Your task to perform on an android device: Search for seafood restaurants on Google Maps Image 0: 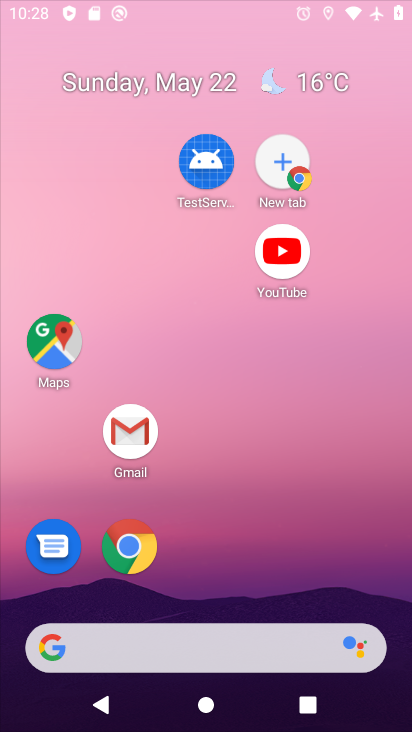
Step 0: drag from (224, 0) to (214, 121)
Your task to perform on an android device: Search for seafood restaurants on Google Maps Image 1: 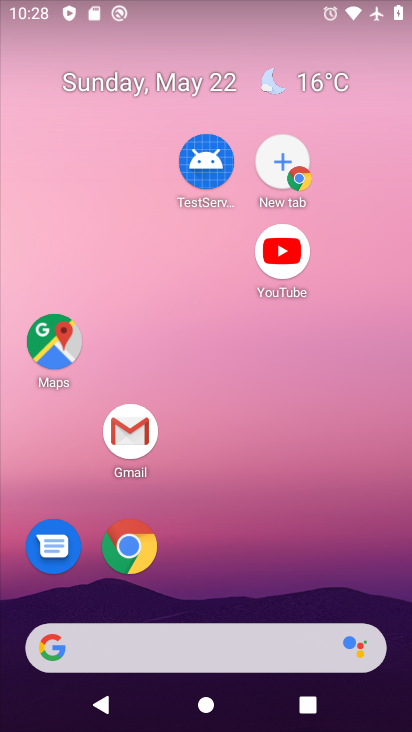
Step 1: drag from (286, 666) to (170, 85)
Your task to perform on an android device: Search for seafood restaurants on Google Maps Image 2: 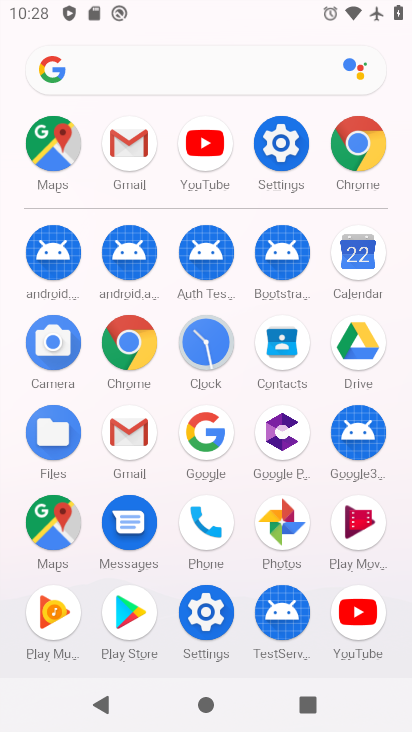
Step 2: click (45, 535)
Your task to perform on an android device: Search for seafood restaurants on Google Maps Image 3: 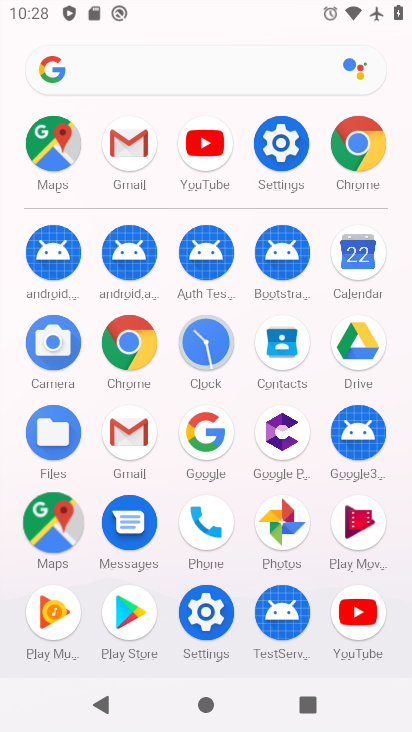
Step 3: click (51, 543)
Your task to perform on an android device: Search for seafood restaurants on Google Maps Image 4: 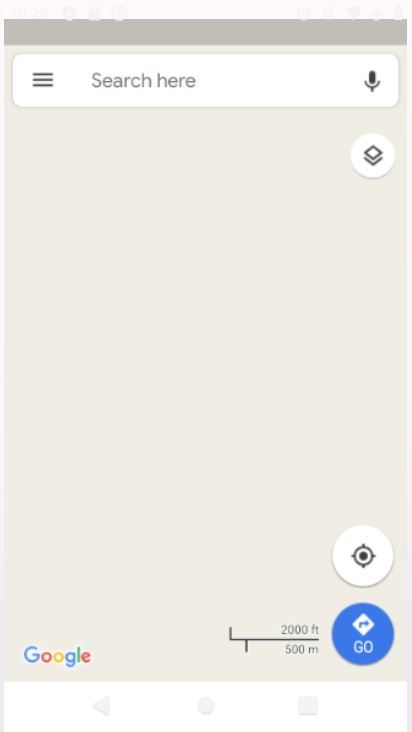
Step 4: click (60, 541)
Your task to perform on an android device: Search for seafood restaurants on Google Maps Image 5: 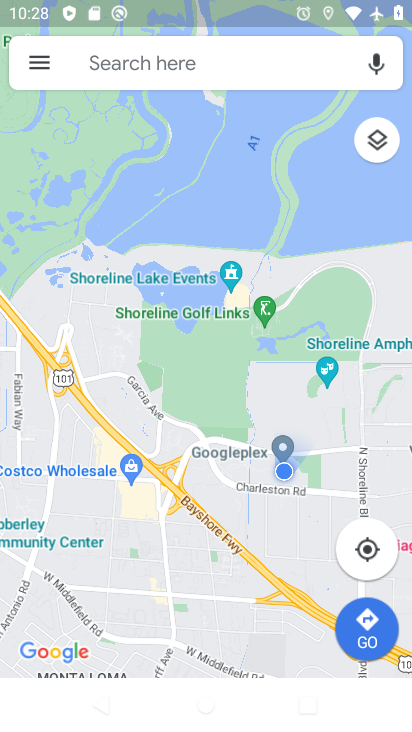
Step 5: click (94, 64)
Your task to perform on an android device: Search for seafood restaurants on Google Maps Image 6: 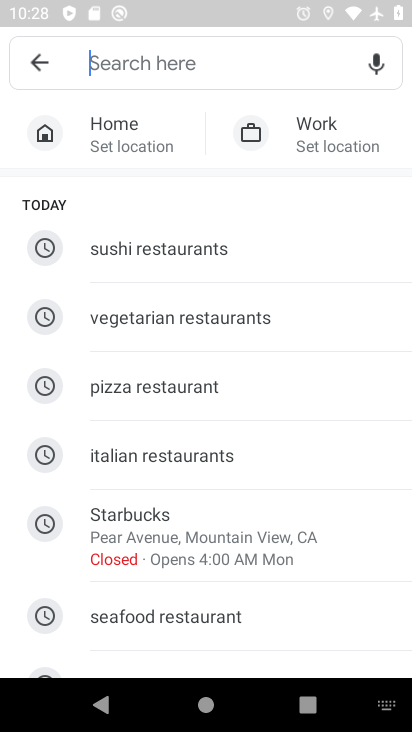
Step 6: click (134, 620)
Your task to perform on an android device: Search for seafood restaurants on Google Maps Image 7: 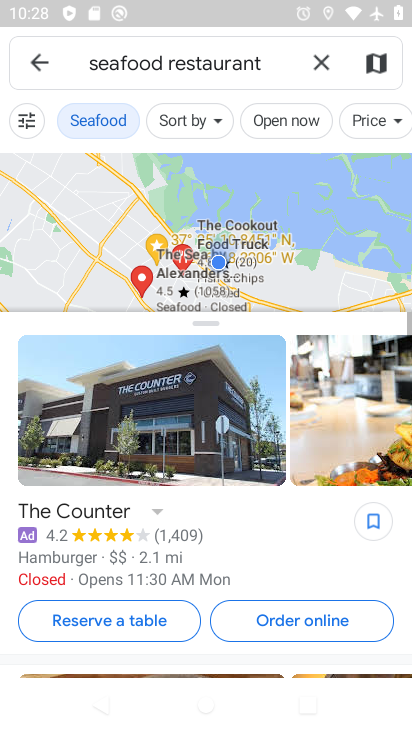
Step 7: task complete